Your task to perform on an android device: turn notification dots on Image 0: 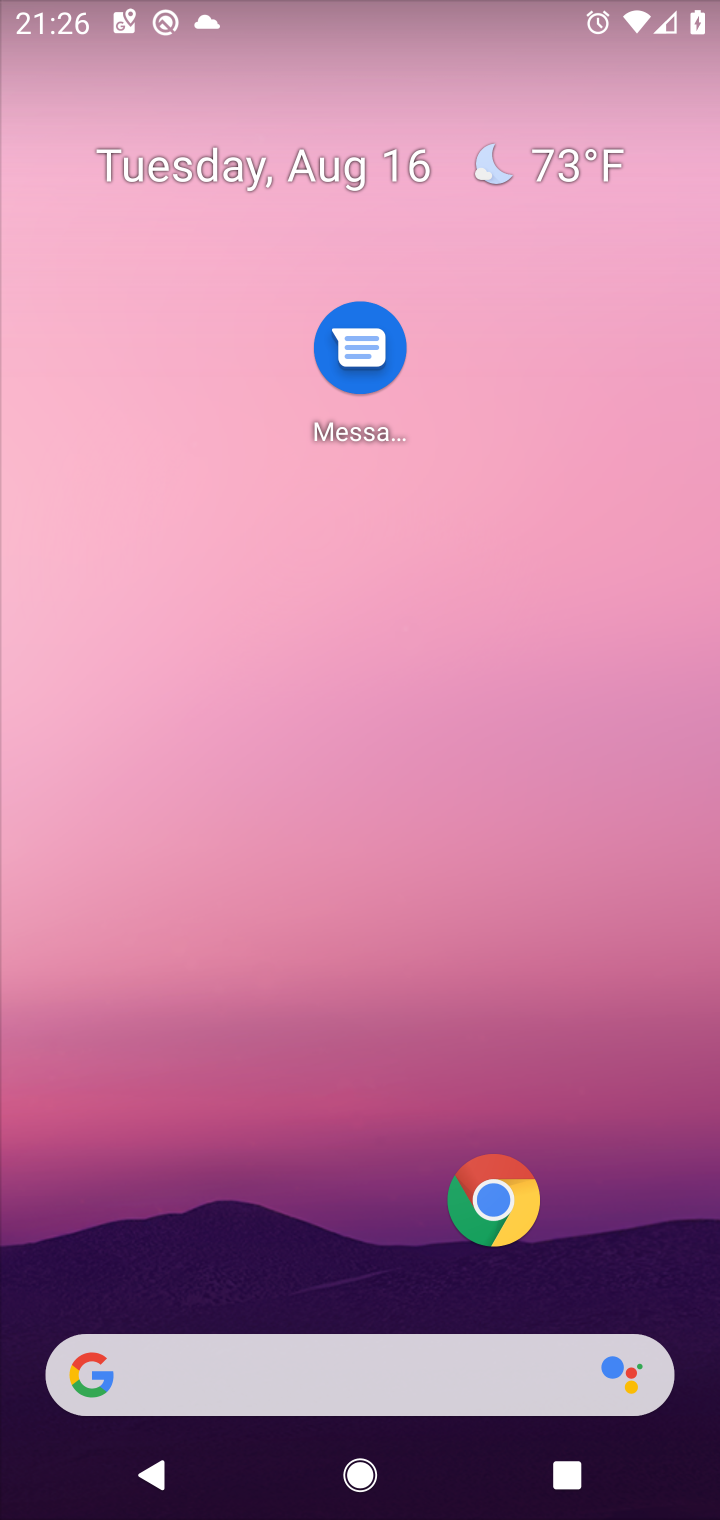
Step 0: drag from (195, 945) to (390, 386)
Your task to perform on an android device: turn notification dots on Image 1: 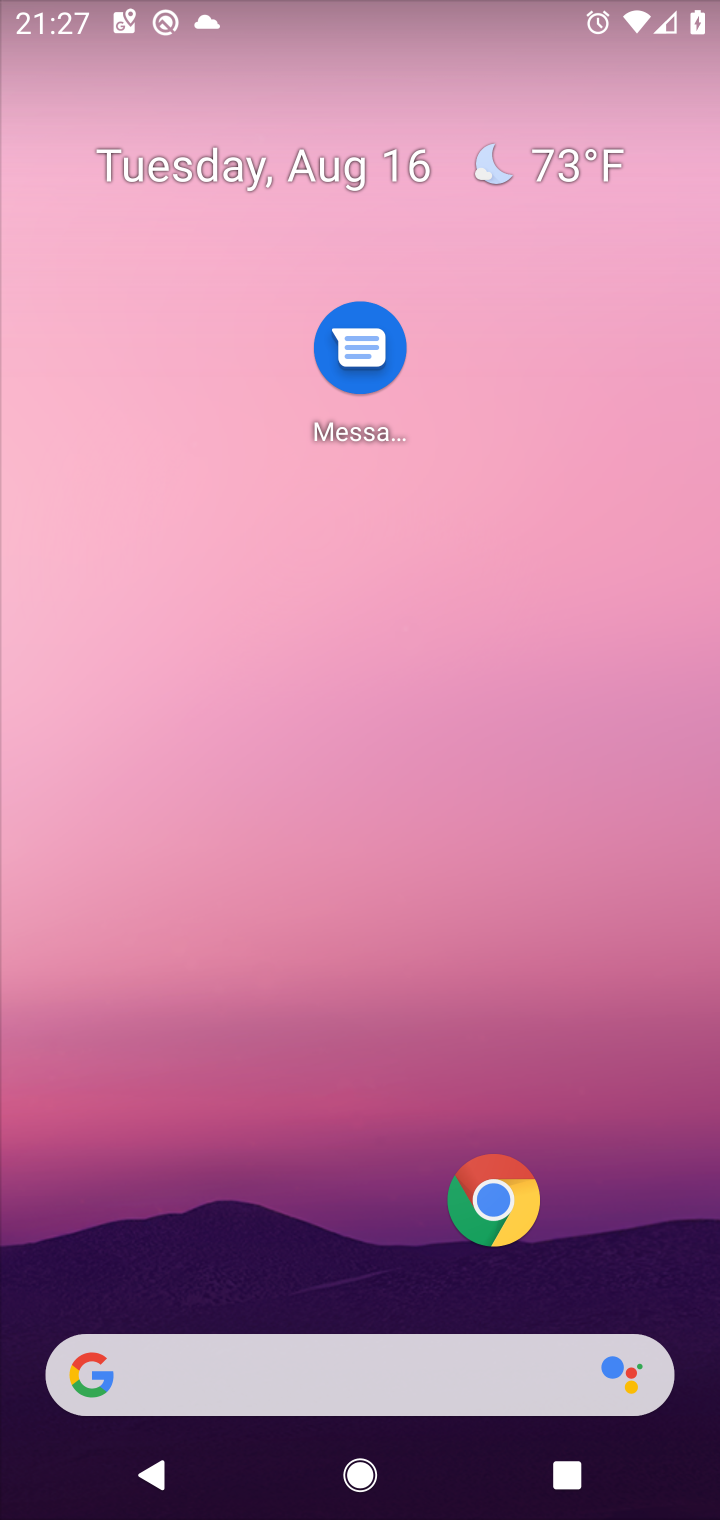
Step 1: drag from (139, 1422) to (646, 620)
Your task to perform on an android device: turn notification dots on Image 2: 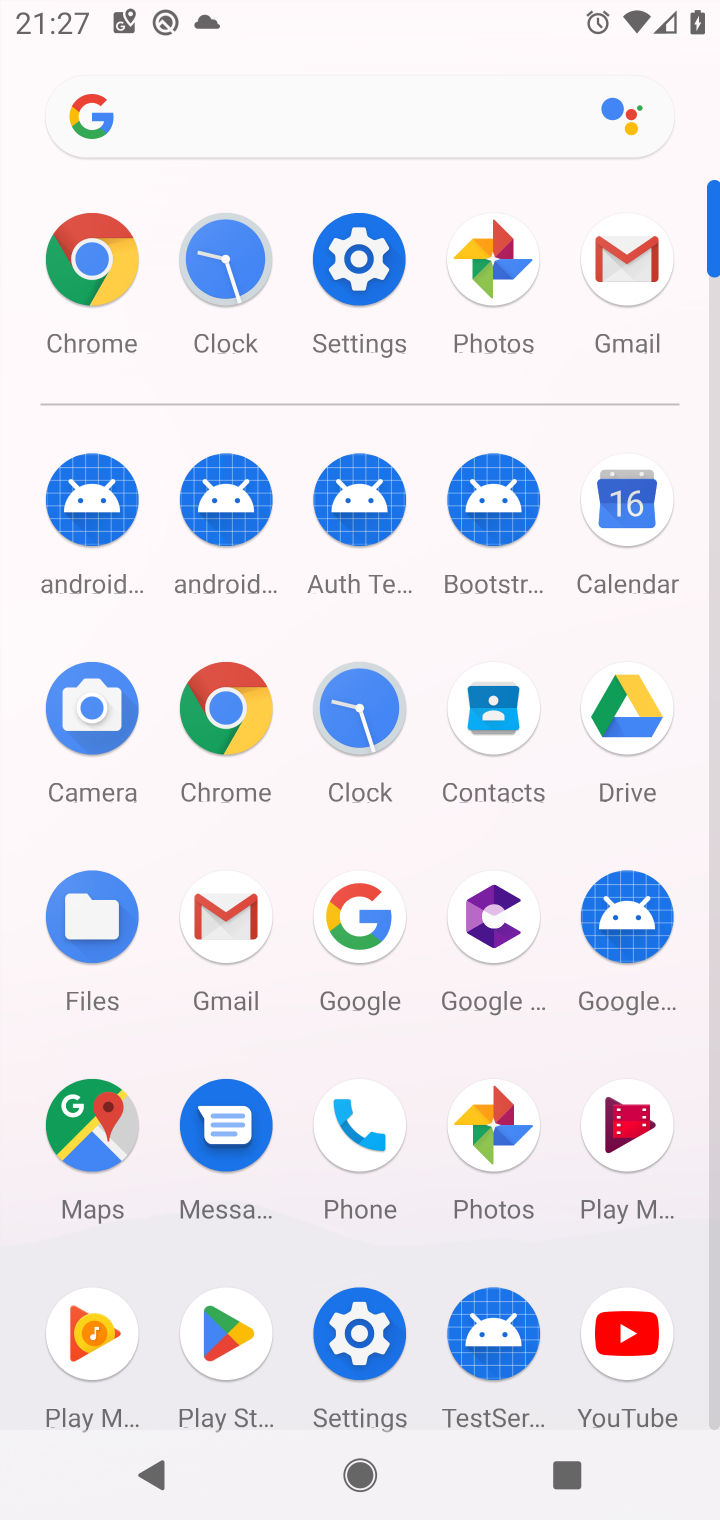
Step 2: click (373, 1327)
Your task to perform on an android device: turn notification dots on Image 3: 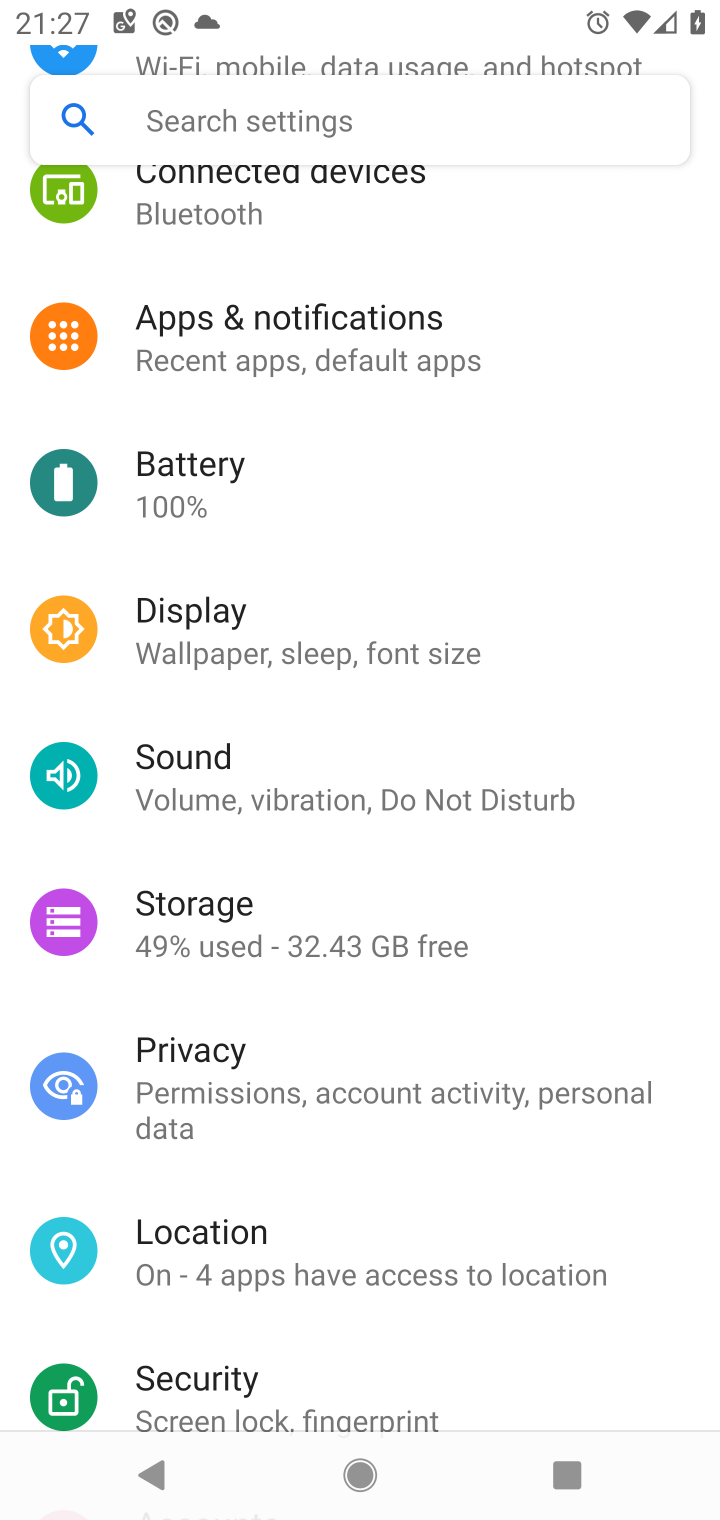
Step 3: drag from (535, 179) to (543, 1053)
Your task to perform on an android device: turn notification dots on Image 4: 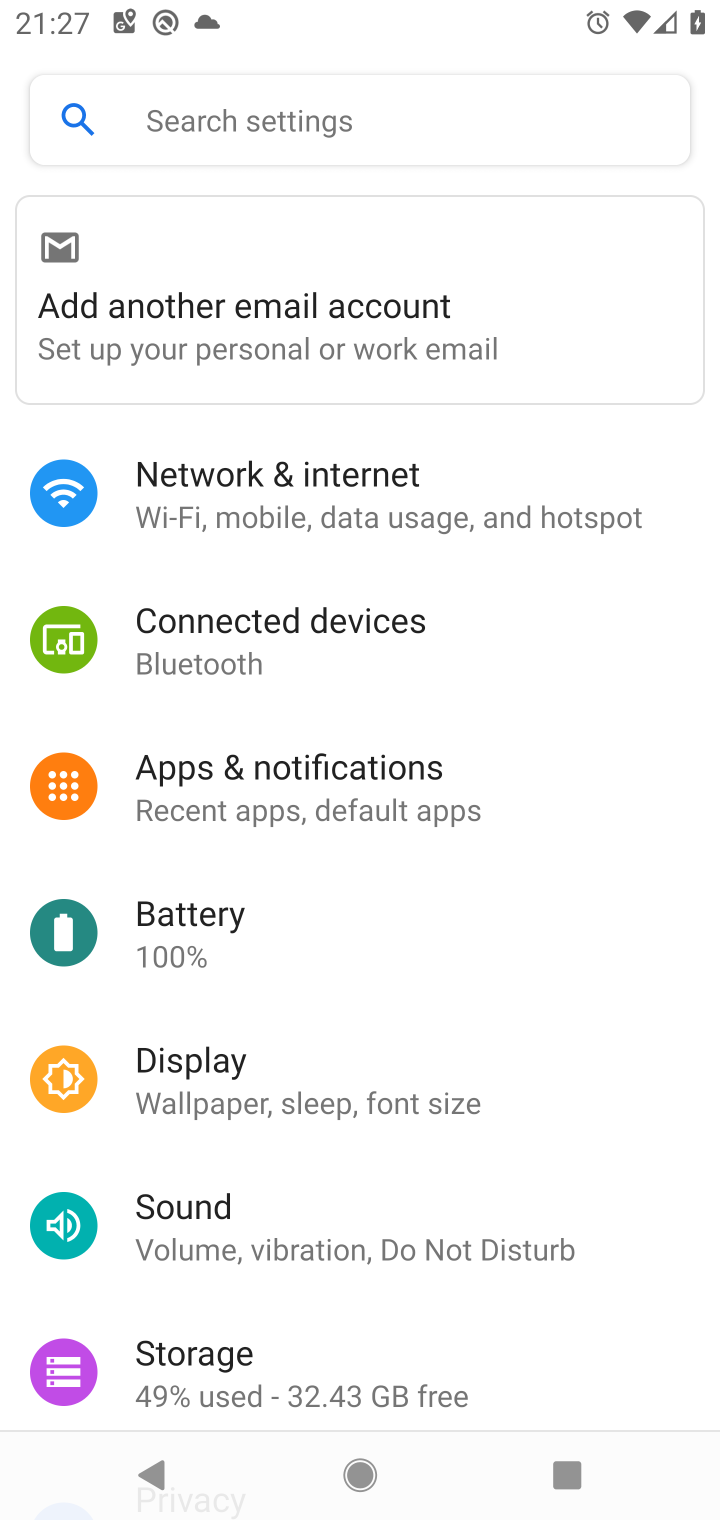
Step 4: click (307, 773)
Your task to perform on an android device: turn notification dots on Image 5: 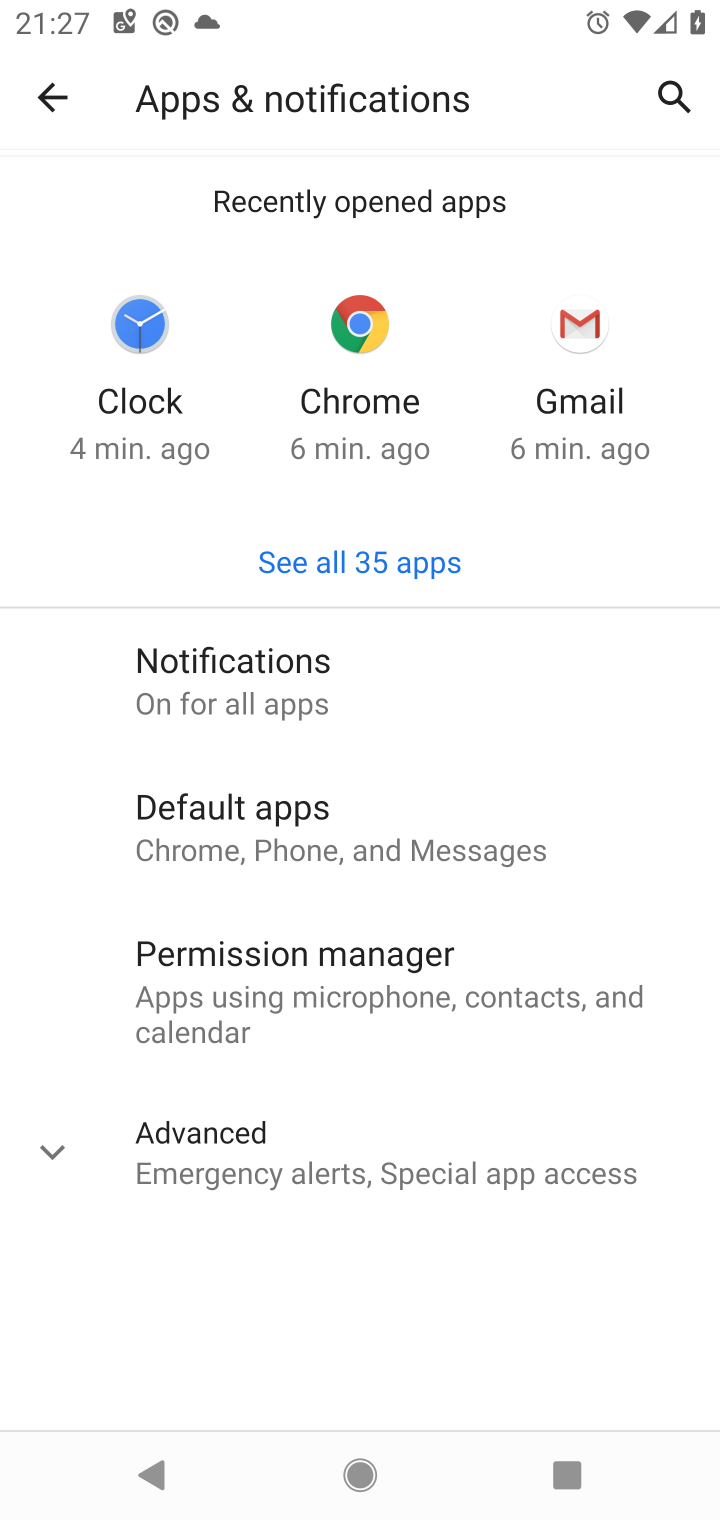
Step 5: click (235, 655)
Your task to perform on an android device: turn notification dots on Image 6: 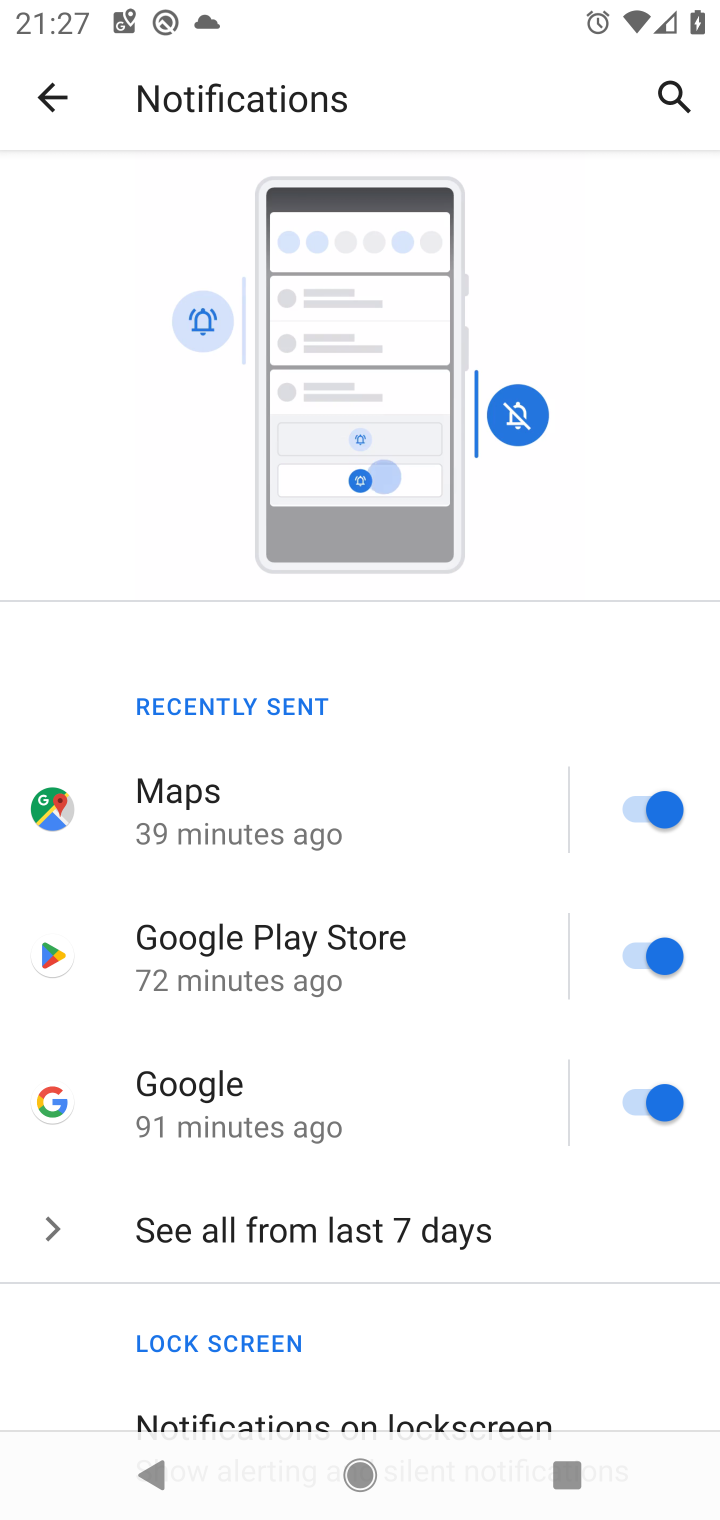
Step 6: drag from (571, 1360) to (460, 562)
Your task to perform on an android device: turn notification dots on Image 7: 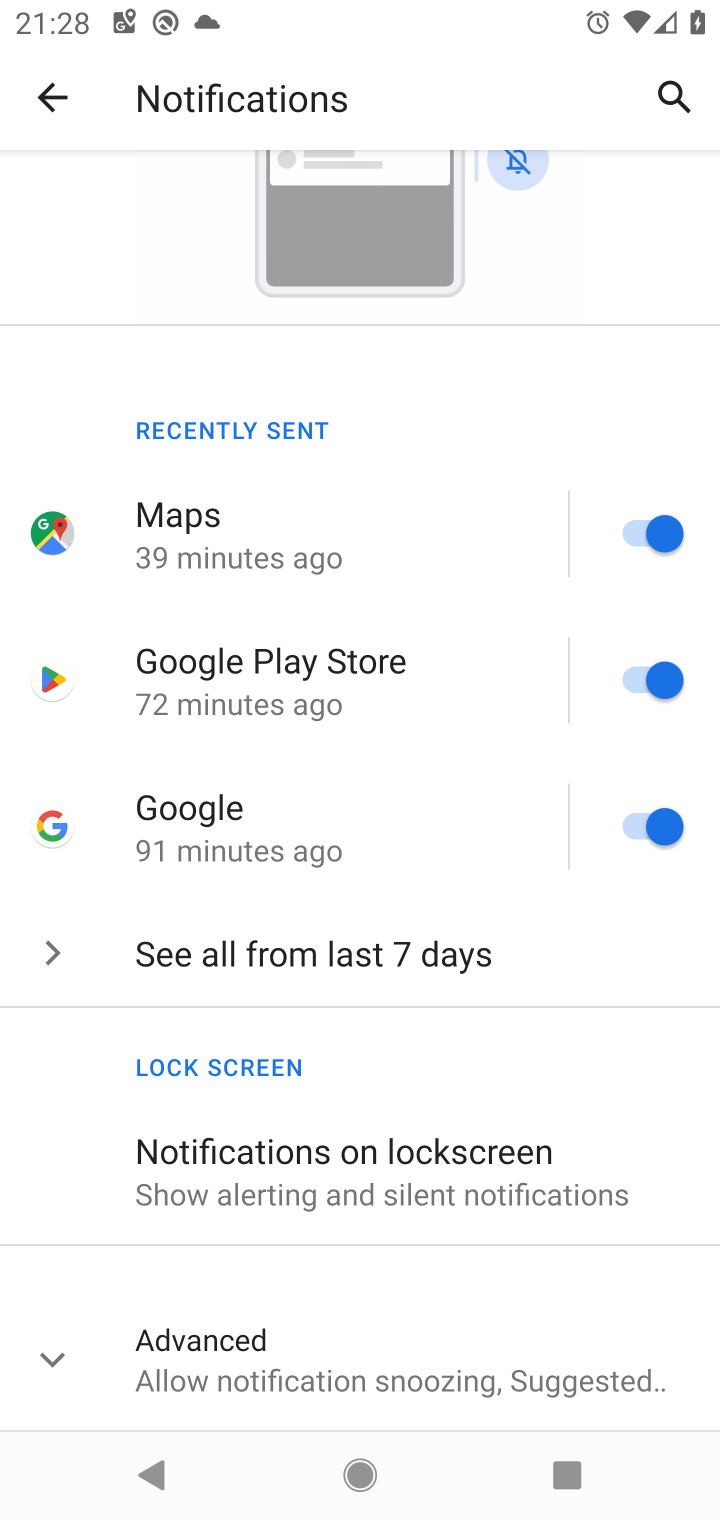
Step 7: drag from (67, 1251) to (99, 703)
Your task to perform on an android device: turn notification dots on Image 8: 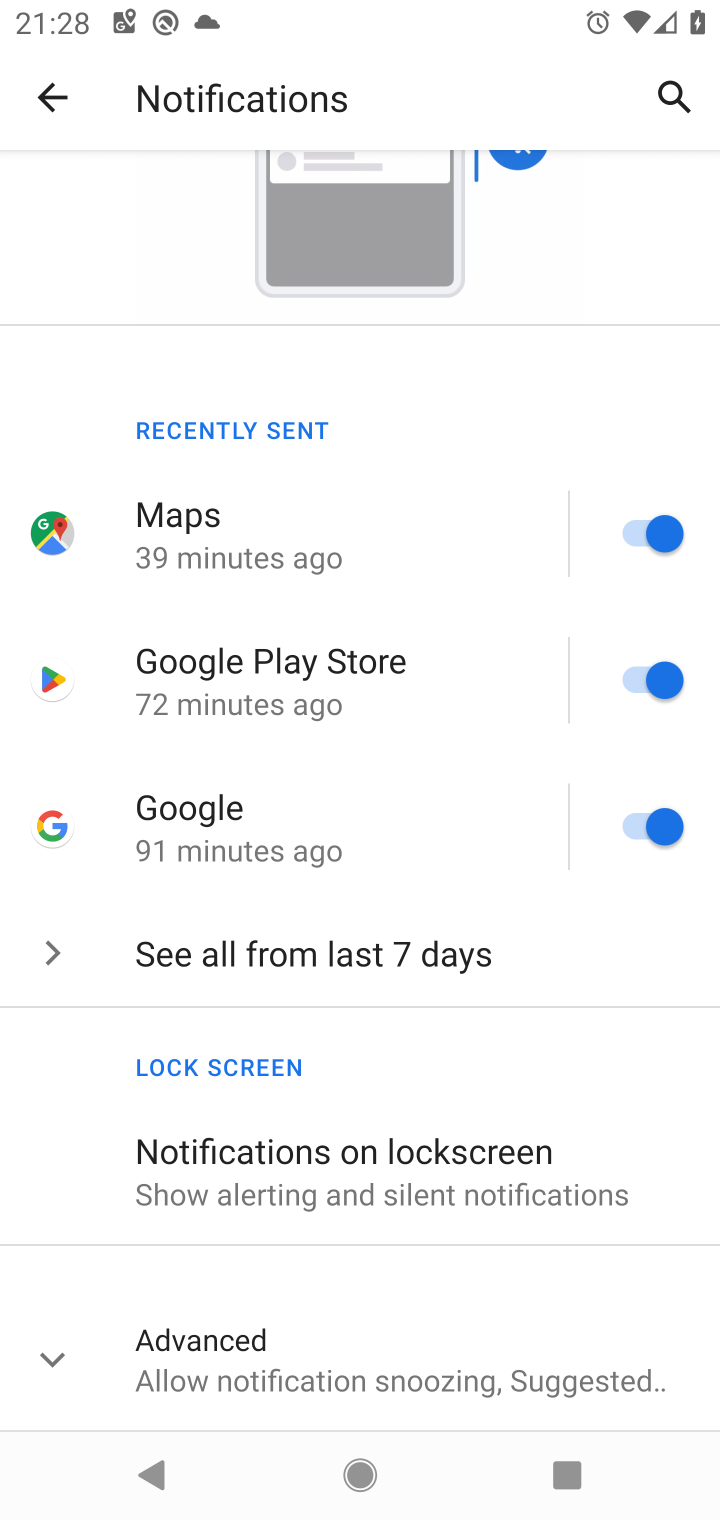
Step 8: click (68, 1367)
Your task to perform on an android device: turn notification dots on Image 9: 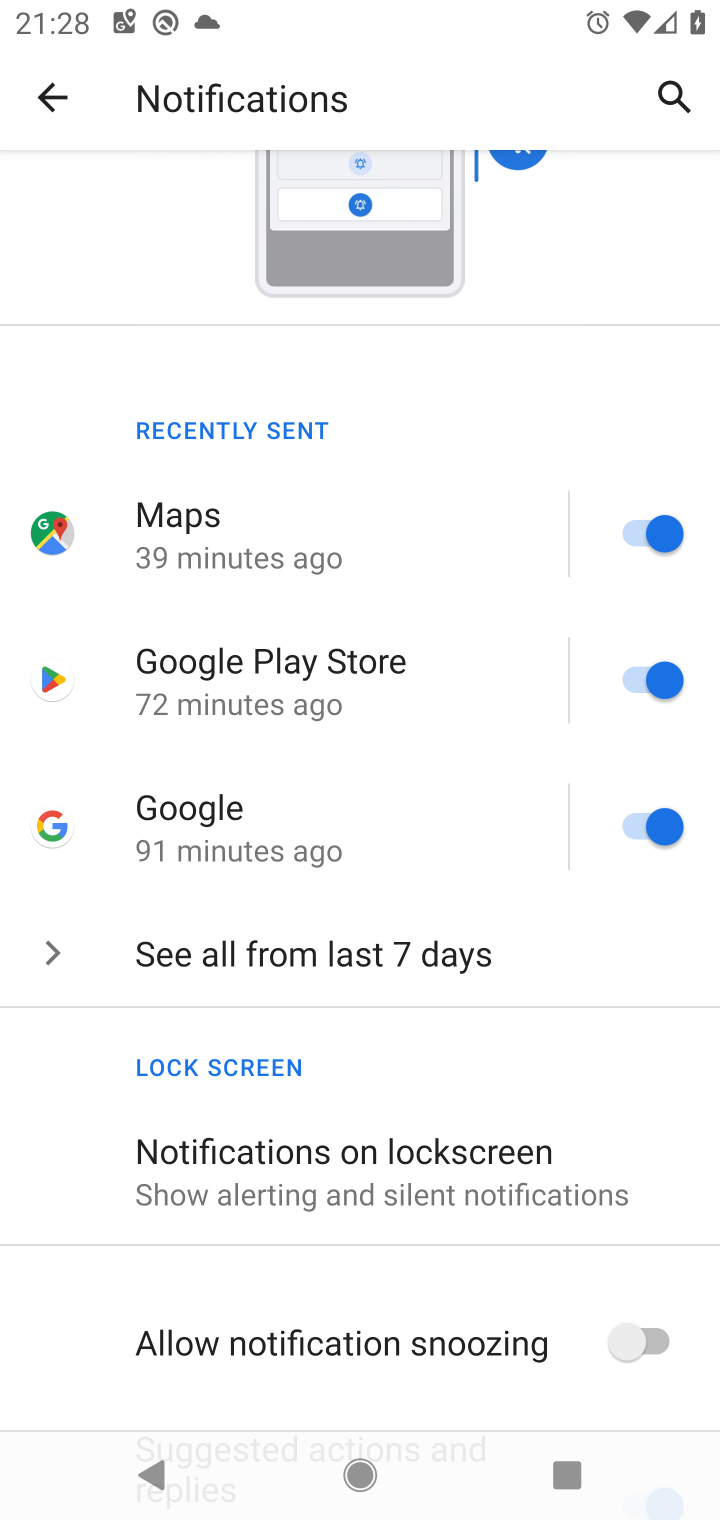
Step 9: drag from (61, 1320) to (227, 421)
Your task to perform on an android device: turn notification dots on Image 10: 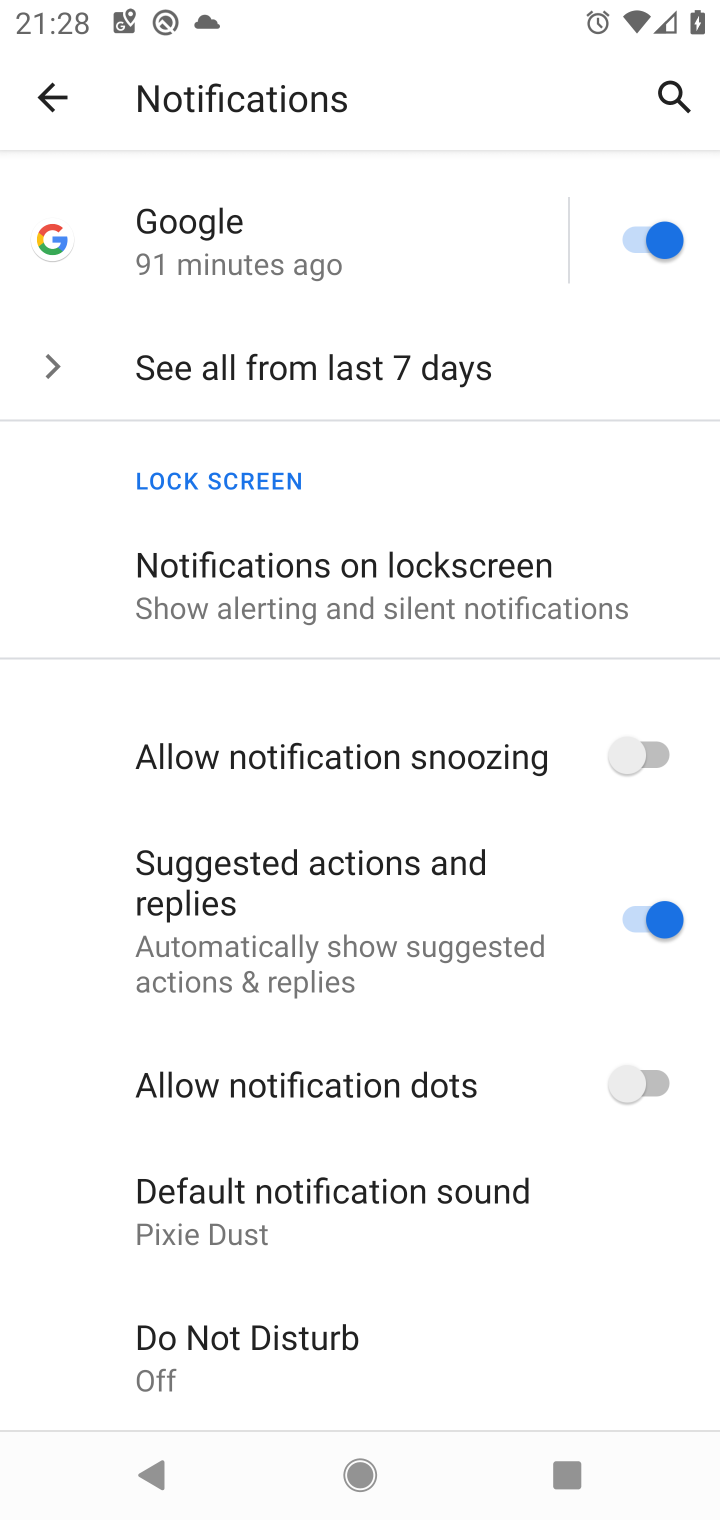
Step 10: click (648, 1082)
Your task to perform on an android device: turn notification dots on Image 11: 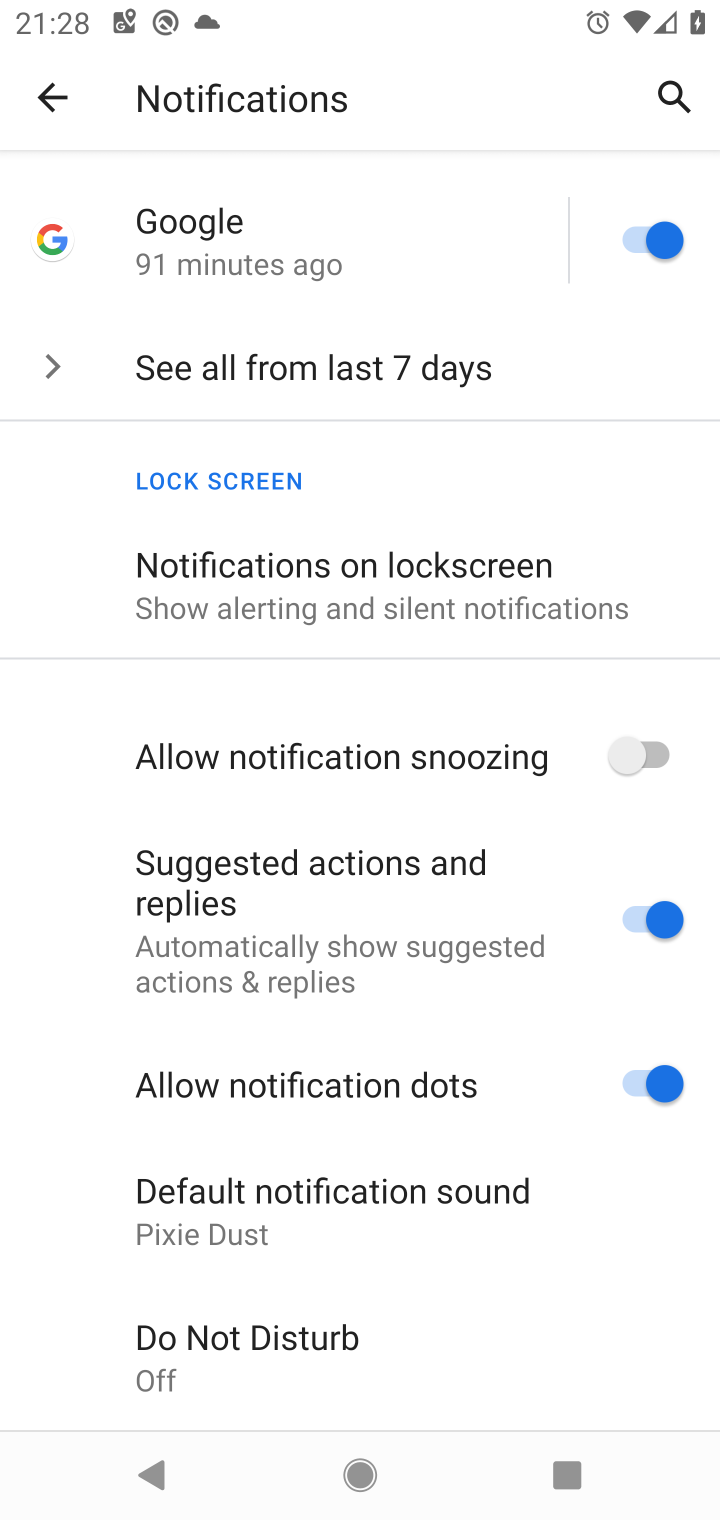
Step 11: task complete